Your task to perform on an android device: Check the new Jordans on Nike. Image 0: 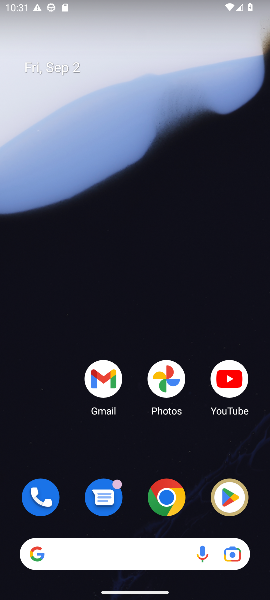
Step 0: click (165, 495)
Your task to perform on an android device: Check the new Jordans on Nike. Image 1: 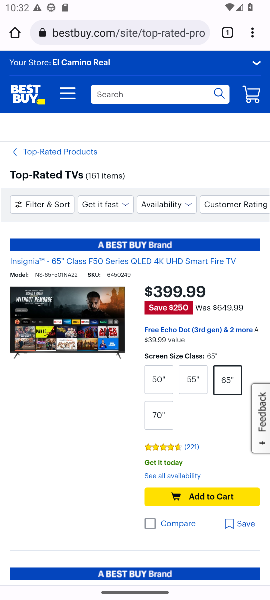
Step 1: click (150, 25)
Your task to perform on an android device: Check the new Jordans on Nike. Image 2: 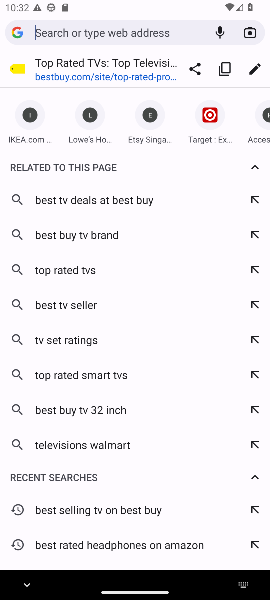
Step 2: type "new Jordans on Nike."
Your task to perform on an android device: Check the new Jordans on Nike. Image 3: 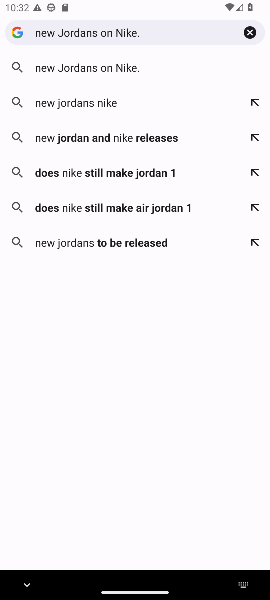
Step 3: click (86, 74)
Your task to perform on an android device: Check the new Jordans on Nike. Image 4: 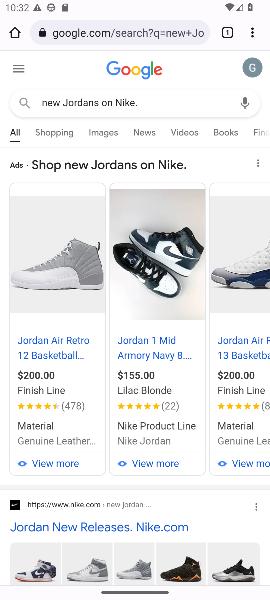
Step 4: click (121, 530)
Your task to perform on an android device: Check the new Jordans on Nike. Image 5: 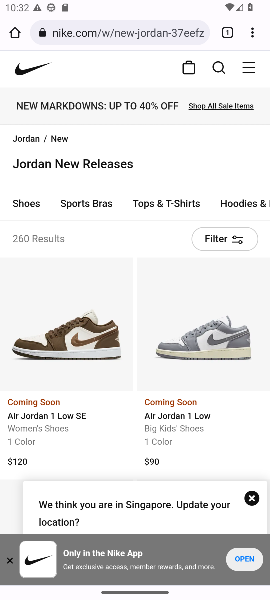
Step 5: task complete